Your task to perform on an android device: Open Google Image 0: 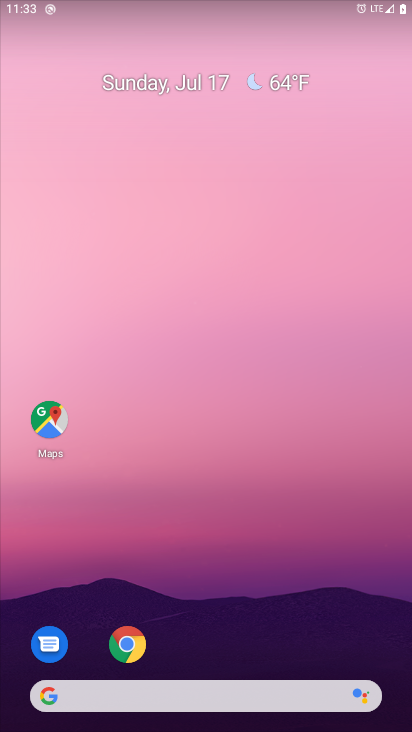
Step 0: press home button
Your task to perform on an android device: Open Google Image 1: 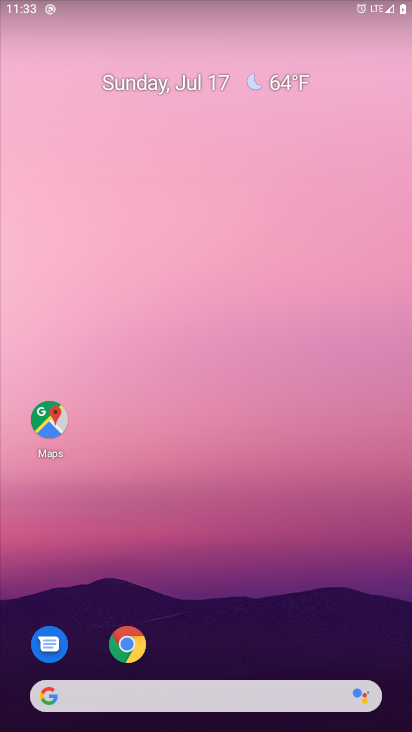
Step 1: press home button
Your task to perform on an android device: Open Google Image 2: 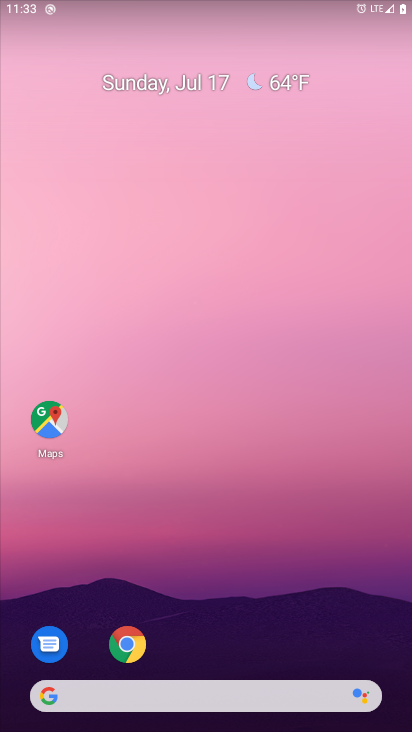
Step 2: drag from (252, 512) to (215, 140)
Your task to perform on an android device: Open Google Image 3: 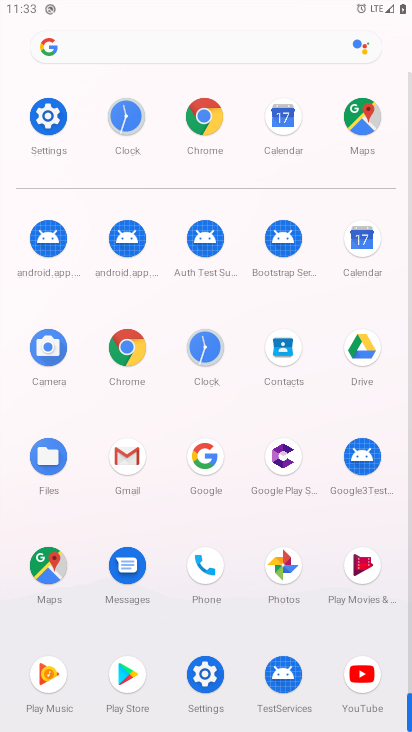
Step 3: click (211, 454)
Your task to perform on an android device: Open Google Image 4: 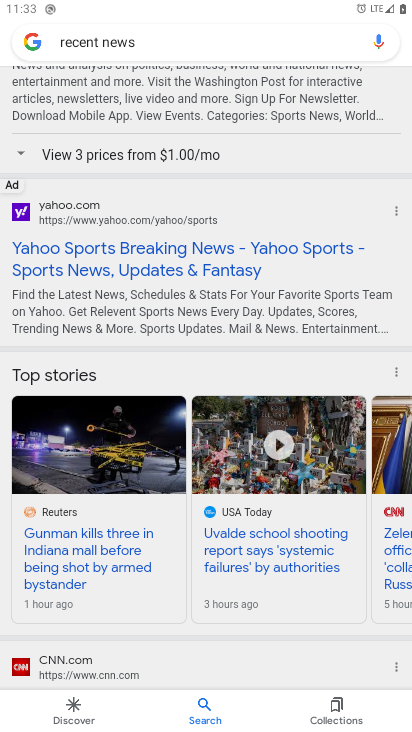
Step 4: press back button
Your task to perform on an android device: Open Google Image 5: 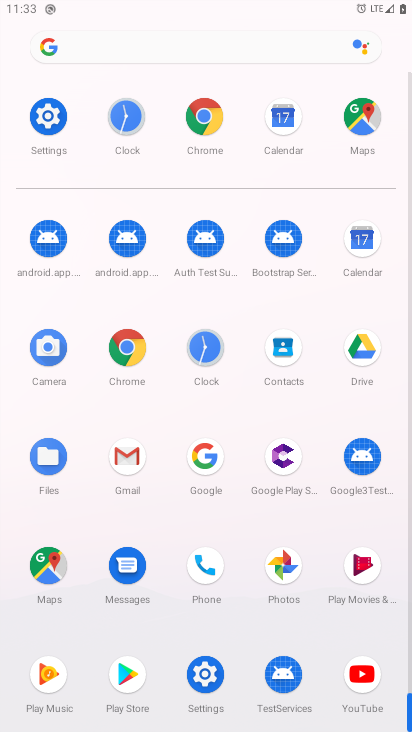
Step 5: click (195, 454)
Your task to perform on an android device: Open Google Image 6: 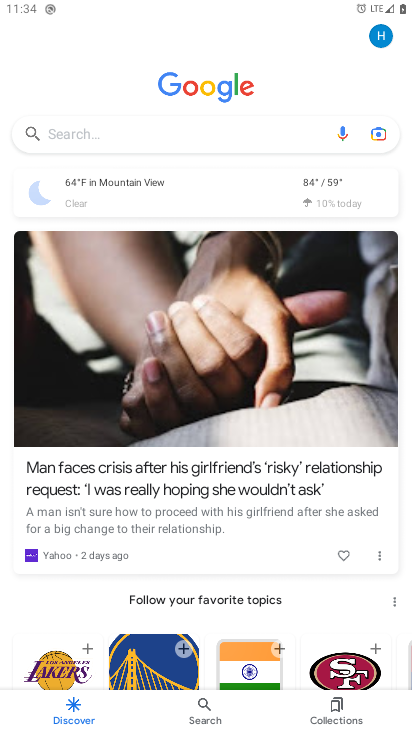
Step 6: task complete